Your task to perform on an android device: delete the emails in spam in the gmail app Image 0: 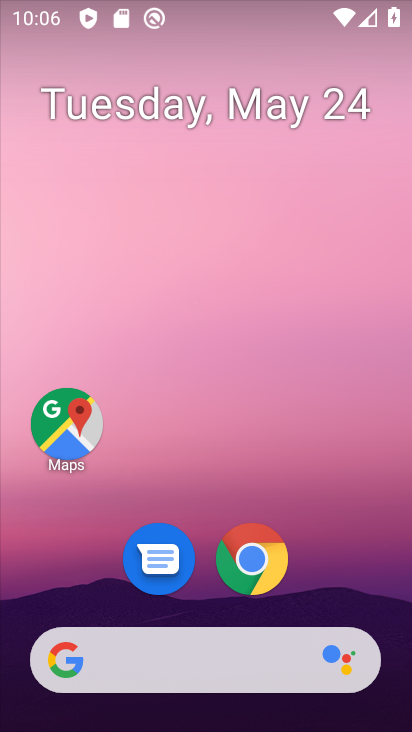
Step 0: click (278, 145)
Your task to perform on an android device: delete the emails in spam in the gmail app Image 1: 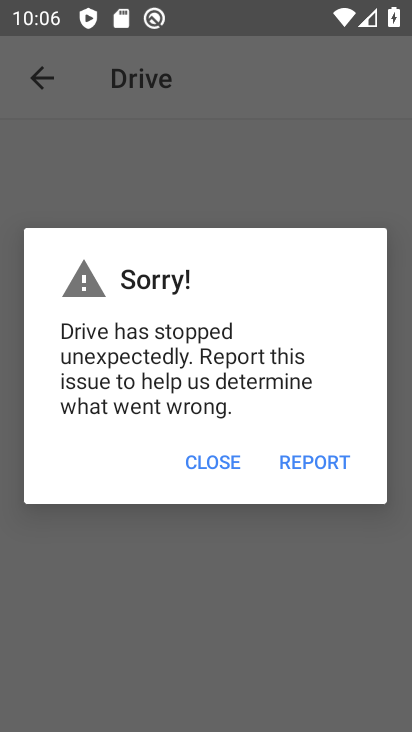
Step 1: press home button
Your task to perform on an android device: delete the emails in spam in the gmail app Image 2: 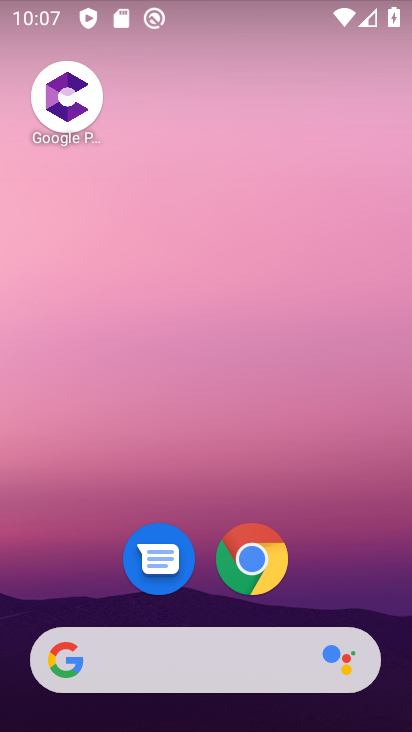
Step 2: drag from (243, 550) to (295, 36)
Your task to perform on an android device: delete the emails in spam in the gmail app Image 3: 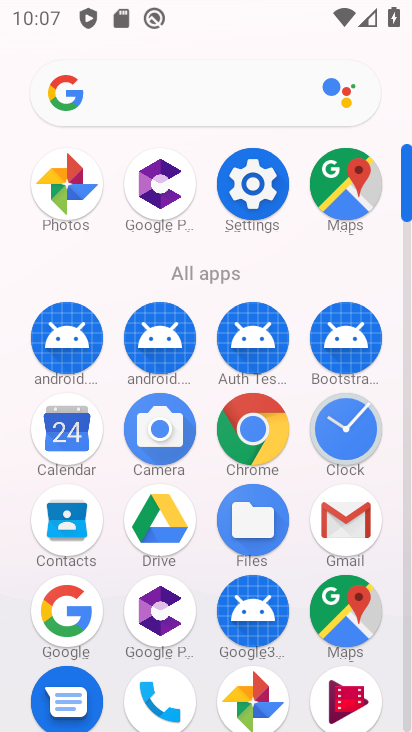
Step 3: click (342, 544)
Your task to perform on an android device: delete the emails in spam in the gmail app Image 4: 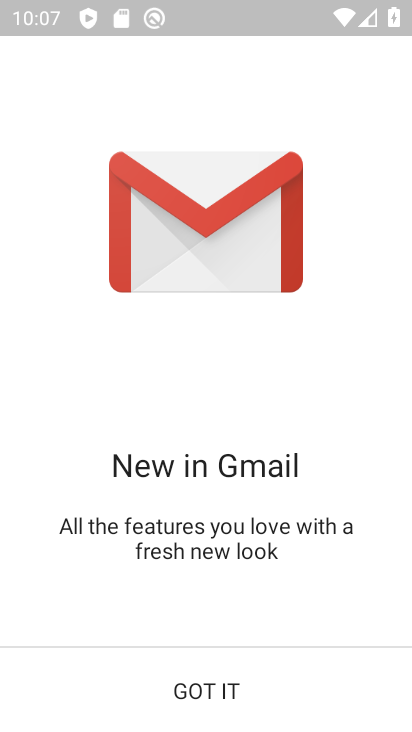
Step 4: click (223, 694)
Your task to perform on an android device: delete the emails in spam in the gmail app Image 5: 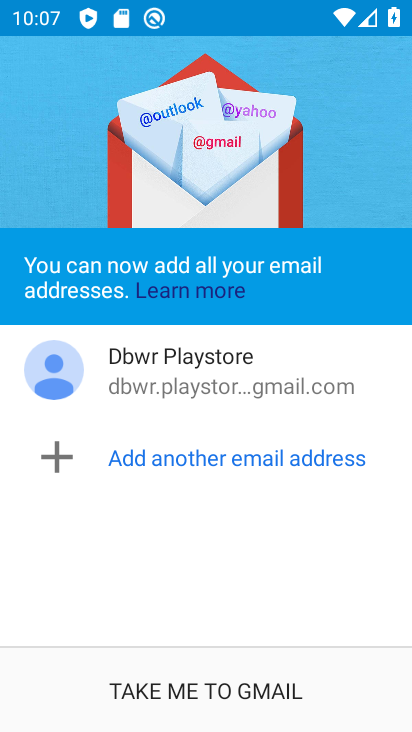
Step 5: click (204, 698)
Your task to perform on an android device: delete the emails in spam in the gmail app Image 6: 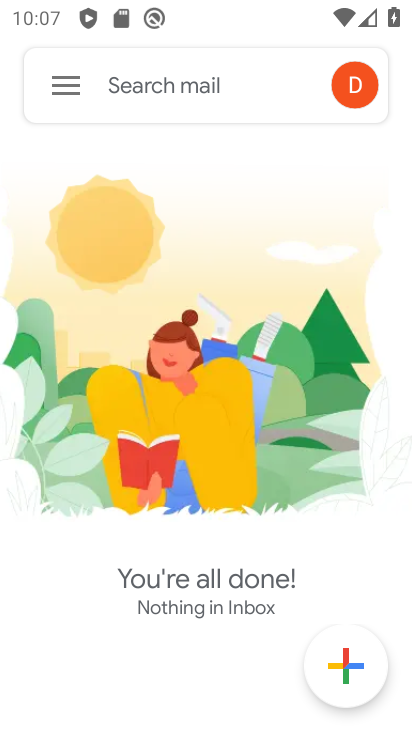
Step 6: click (65, 83)
Your task to perform on an android device: delete the emails in spam in the gmail app Image 7: 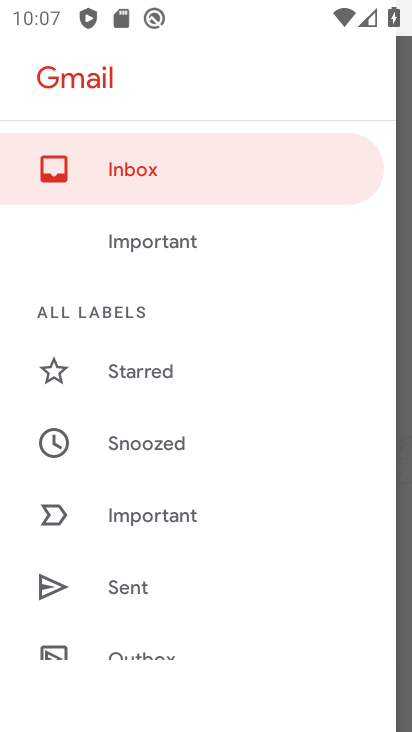
Step 7: drag from (149, 642) to (233, 143)
Your task to perform on an android device: delete the emails in spam in the gmail app Image 8: 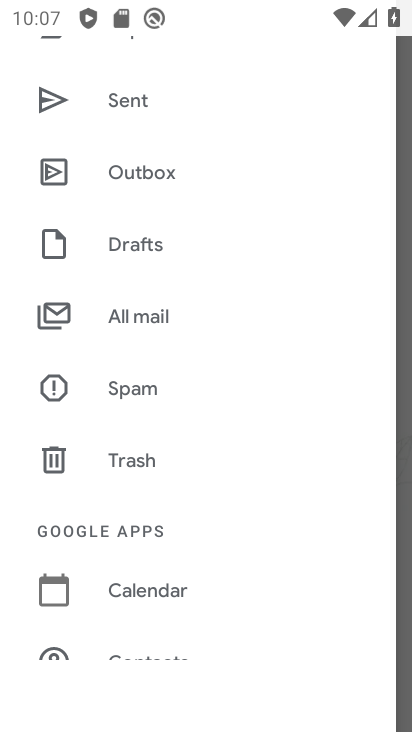
Step 8: click (121, 385)
Your task to perform on an android device: delete the emails in spam in the gmail app Image 9: 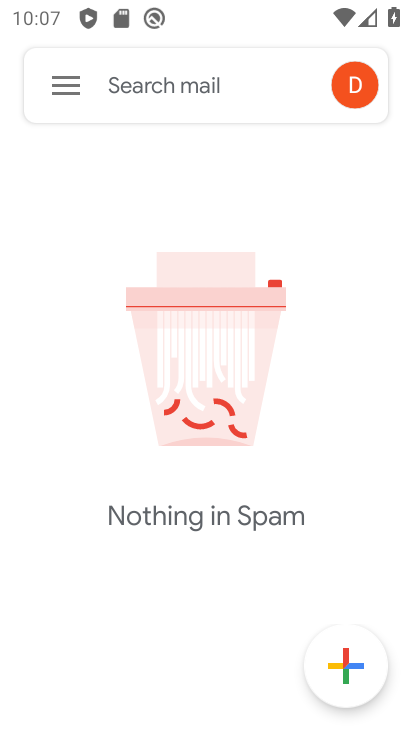
Step 9: task complete